Your task to perform on an android device: star an email in the gmail app Image 0: 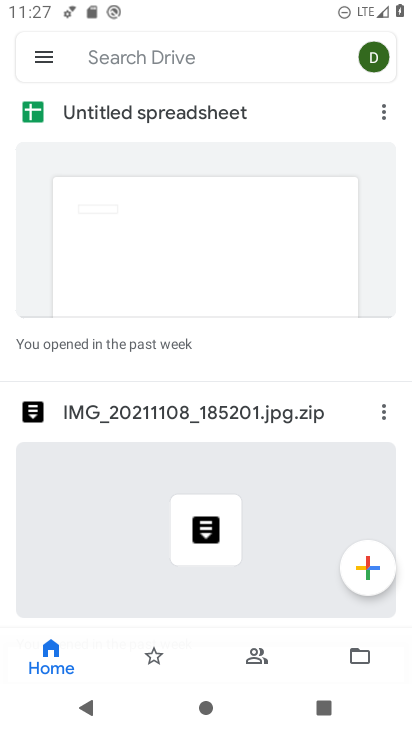
Step 0: press home button
Your task to perform on an android device: star an email in the gmail app Image 1: 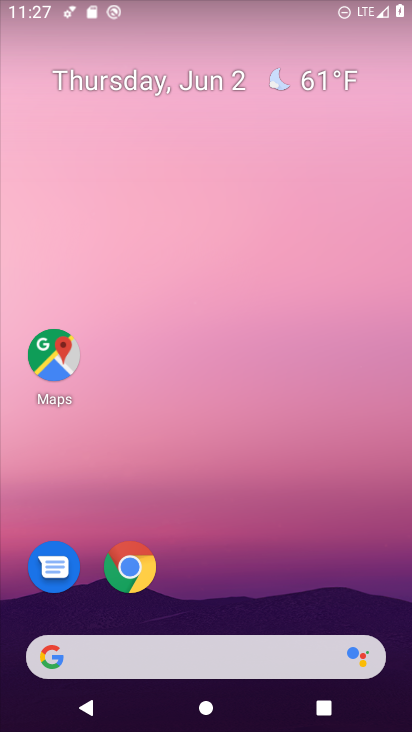
Step 1: drag from (230, 477) to (214, 134)
Your task to perform on an android device: star an email in the gmail app Image 2: 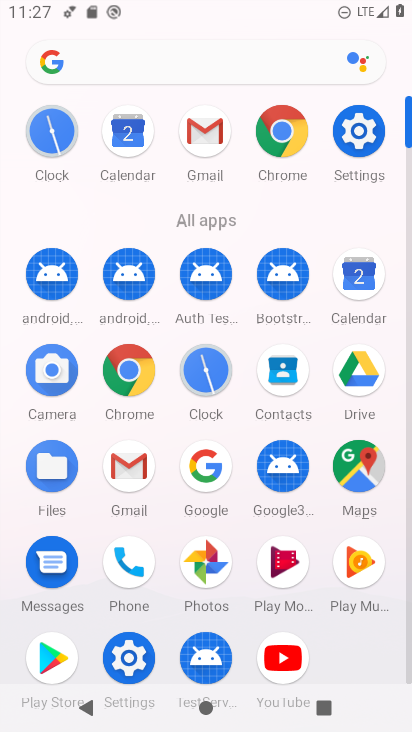
Step 2: click (208, 138)
Your task to perform on an android device: star an email in the gmail app Image 3: 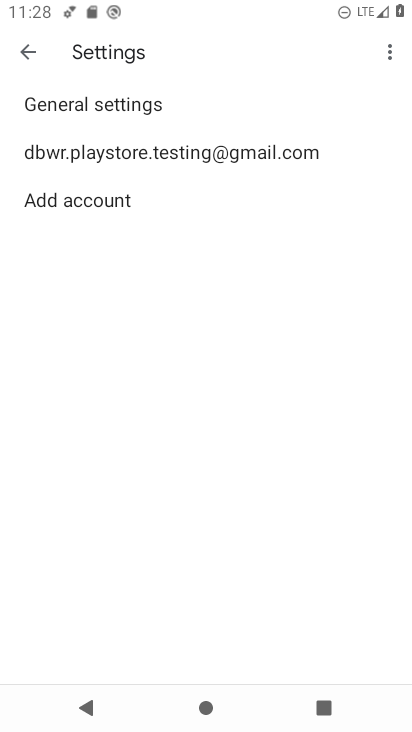
Step 3: click (25, 50)
Your task to perform on an android device: star an email in the gmail app Image 4: 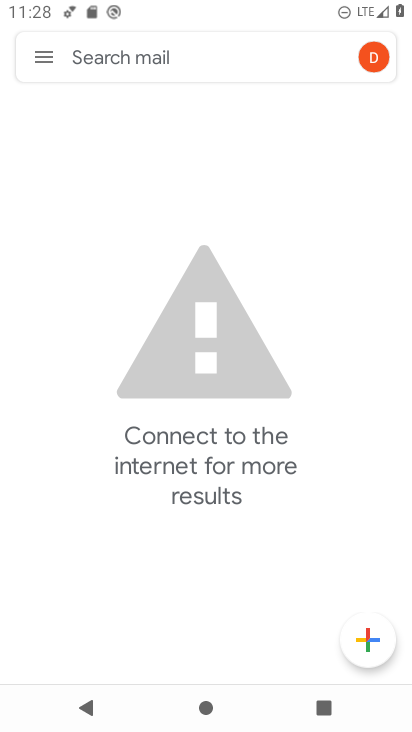
Step 4: click (35, 49)
Your task to perform on an android device: star an email in the gmail app Image 5: 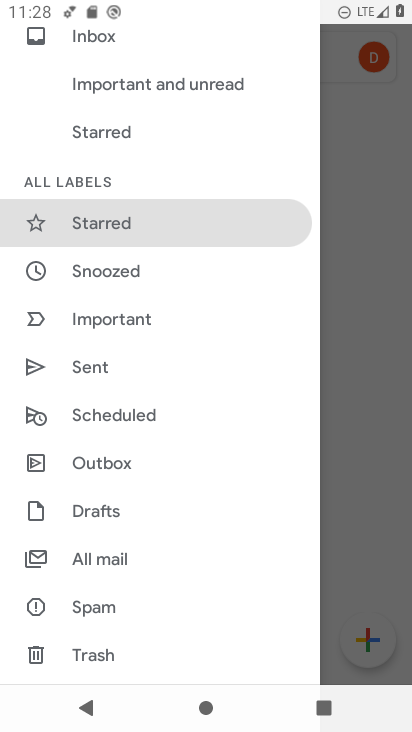
Step 5: click (125, 559)
Your task to perform on an android device: star an email in the gmail app Image 6: 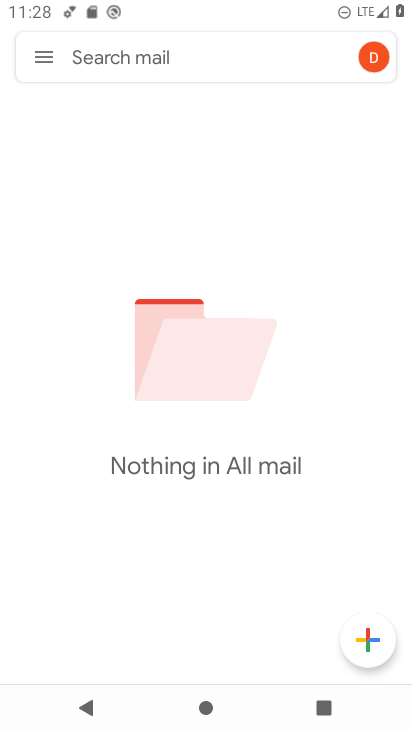
Step 6: task complete